Your task to perform on an android device: turn on improve location accuracy Image 0: 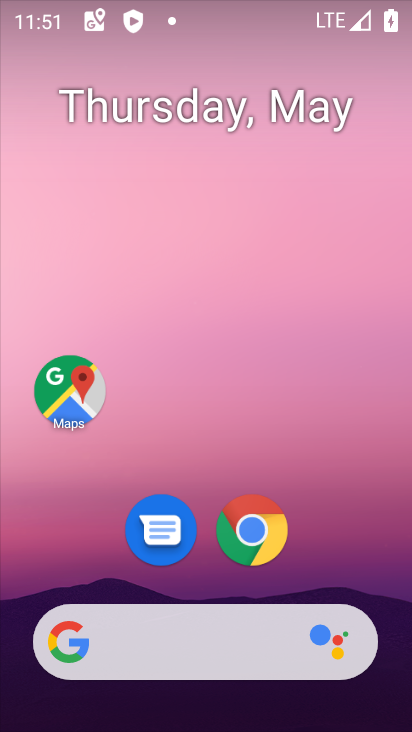
Step 0: click (67, 376)
Your task to perform on an android device: turn on improve location accuracy Image 1: 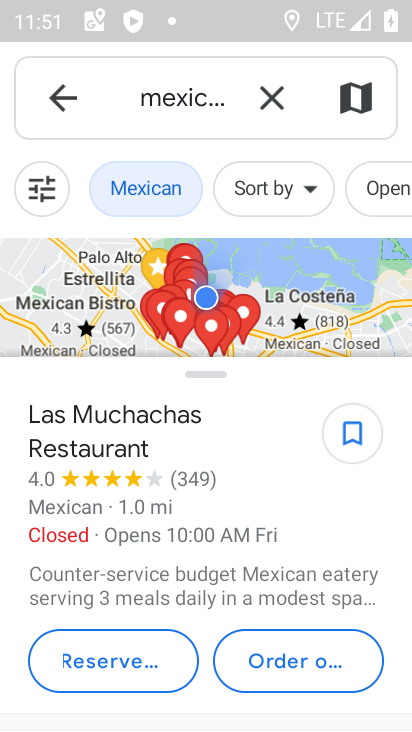
Step 1: click (57, 89)
Your task to perform on an android device: turn on improve location accuracy Image 2: 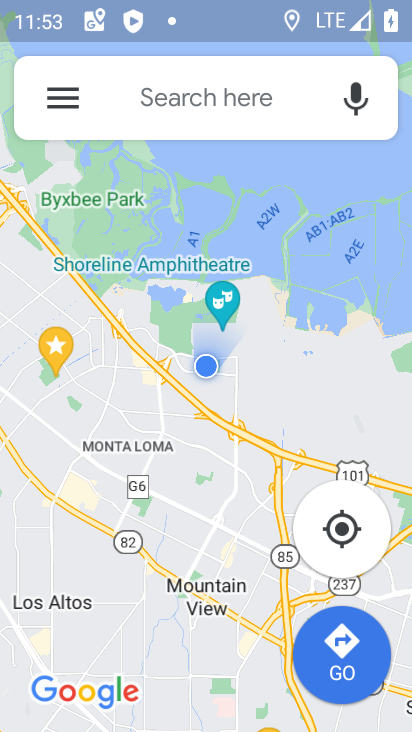
Step 2: click (42, 97)
Your task to perform on an android device: turn on improve location accuracy Image 3: 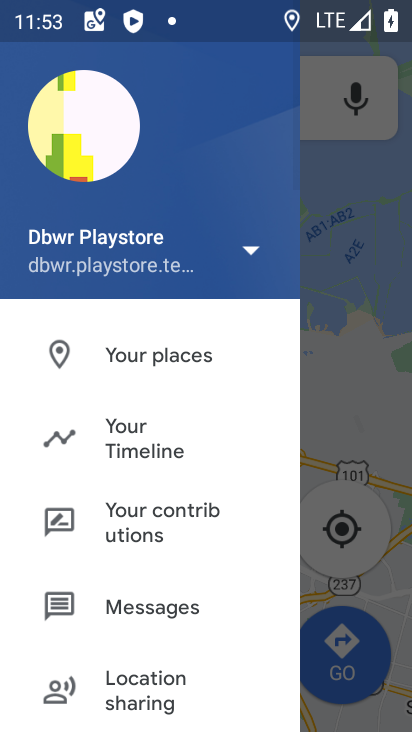
Step 3: drag from (203, 605) to (301, 24)
Your task to perform on an android device: turn on improve location accuracy Image 4: 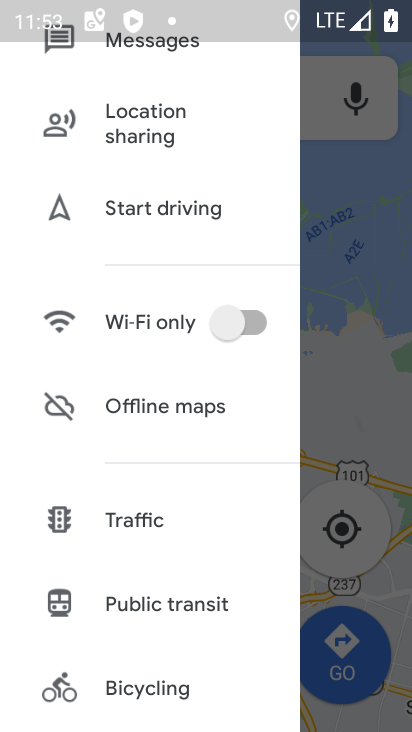
Step 4: drag from (159, 642) to (267, 4)
Your task to perform on an android device: turn on improve location accuracy Image 5: 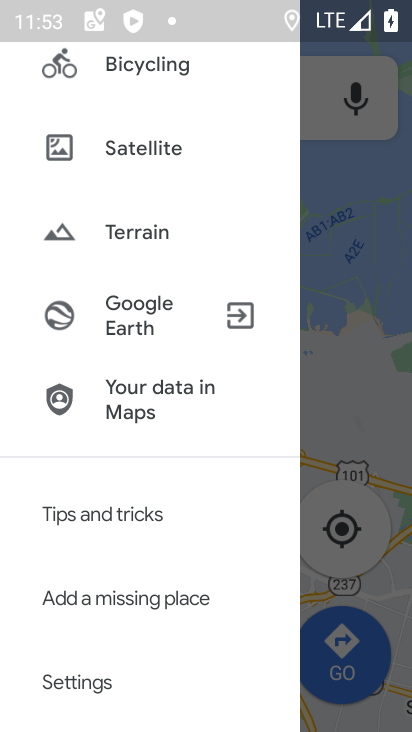
Step 5: click (91, 677)
Your task to perform on an android device: turn on improve location accuracy Image 6: 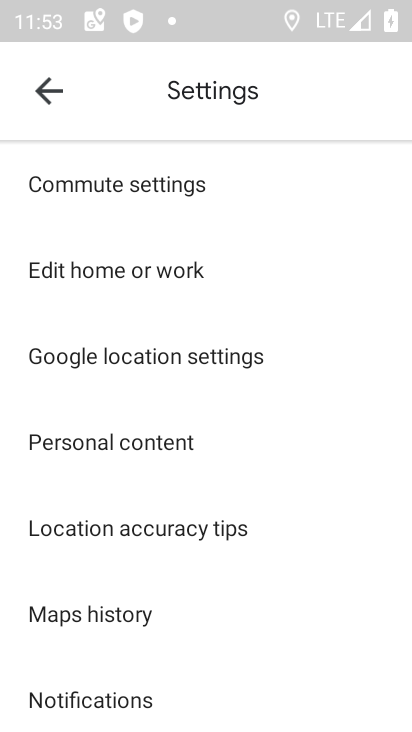
Step 6: click (219, 351)
Your task to perform on an android device: turn on improve location accuracy Image 7: 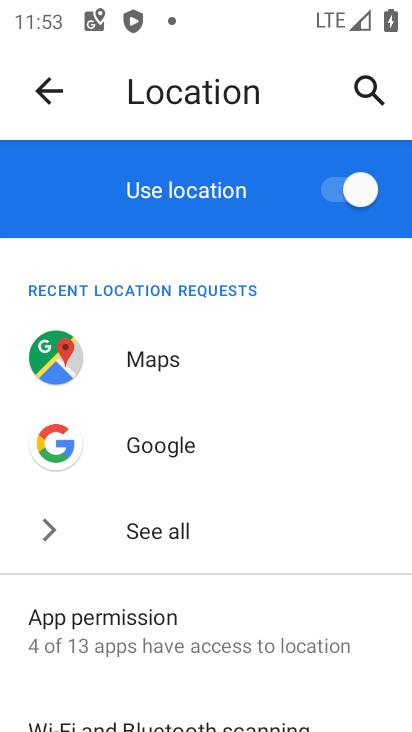
Step 7: drag from (203, 653) to (256, 55)
Your task to perform on an android device: turn on improve location accuracy Image 8: 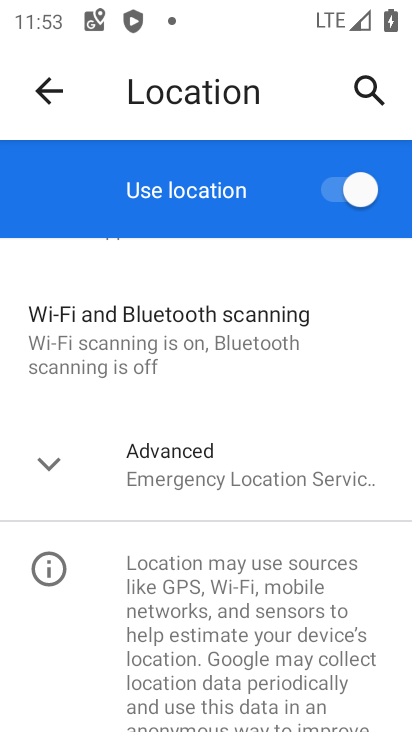
Step 8: click (275, 490)
Your task to perform on an android device: turn on improve location accuracy Image 9: 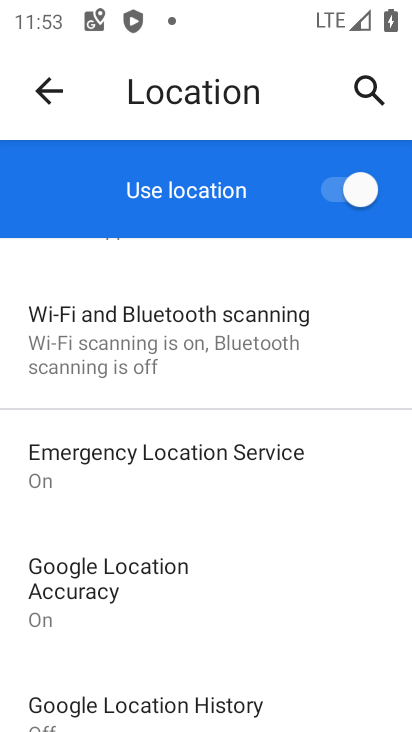
Step 9: click (100, 604)
Your task to perform on an android device: turn on improve location accuracy Image 10: 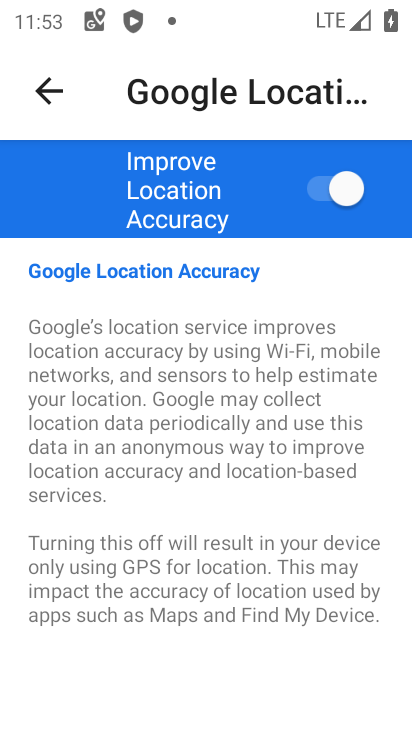
Step 10: task complete